Your task to perform on an android device: add a contact in the contacts app Image 0: 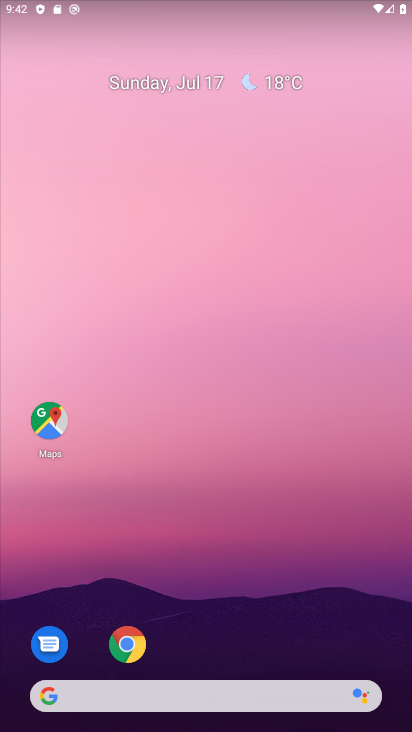
Step 0: drag from (383, 584) to (326, 47)
Your task to perform on an android device: add a contact in the contacts app Image 1: 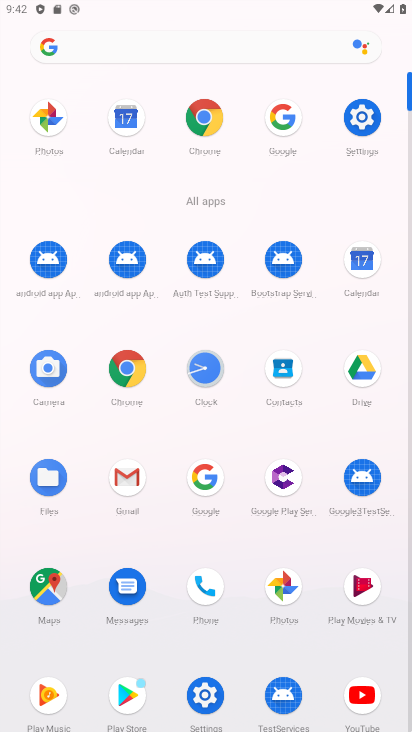
Step 1: click (277, 363)
Your task to perform on an android device: add a contact in the contacts app Image 2: 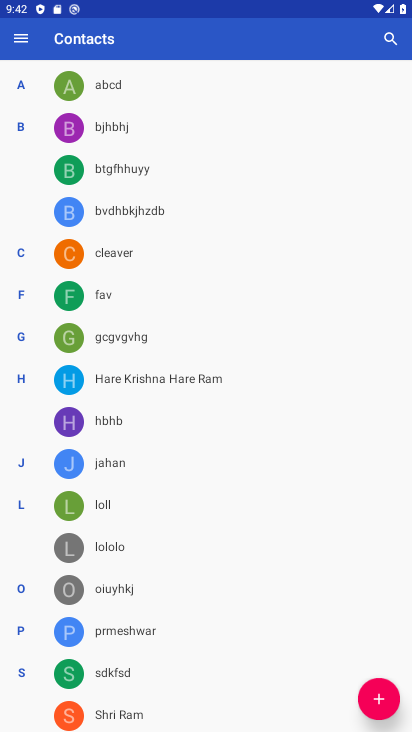
Step 2: click (360, 691)
Your task to perform on an android device: add a contact in the contacts app Image 3: 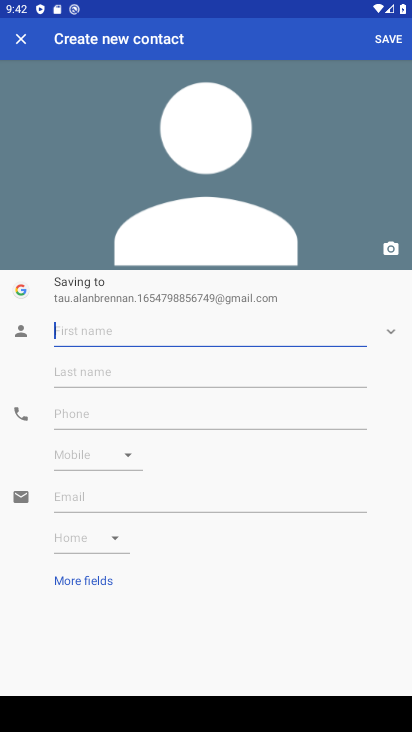
Step 3: type "tdtgcgfjgh"
Your task to perform on an android device: add a contact in the contacts app Image 4: 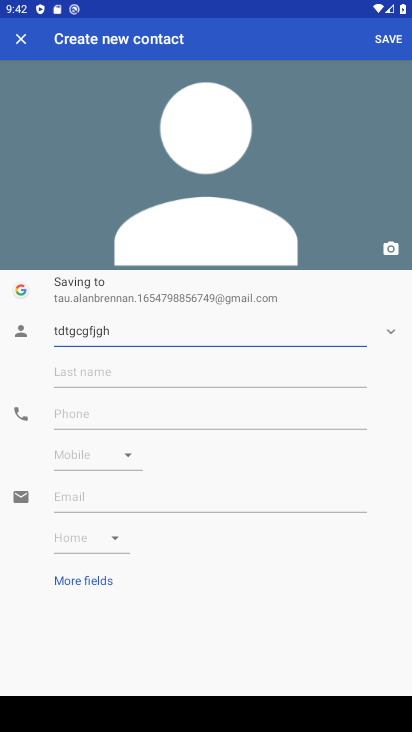
Step 4: click (82, 381)
Your task to perform on an android device: add a contact in the contacts app Image 5: 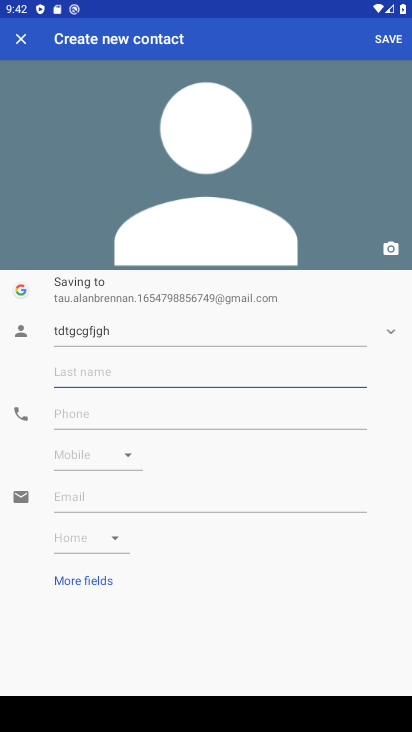
Step 5: type "yrscfcyrdch"
Your task to perform on an android device: add a contact in the contacts app Image 6: 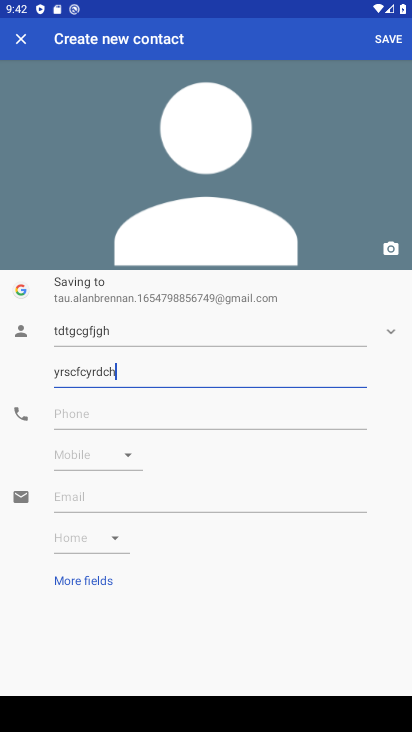
Step 6: click (126, 418)
Your task to perform on an android device: add a contact in the contacts app Image 7: 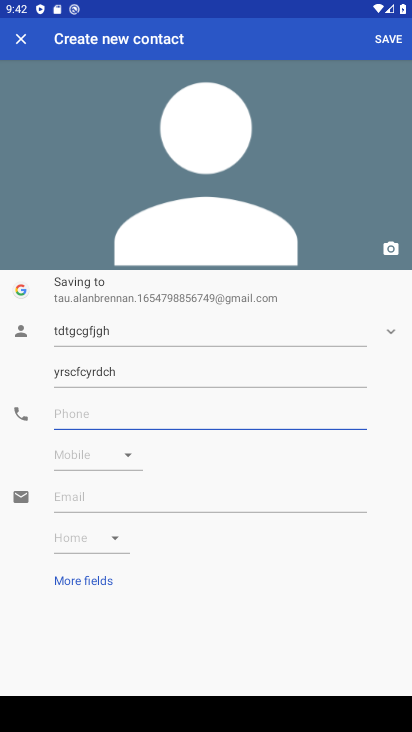
Step 7: type "454545477453436"
Your task to perform on an android device: add a contact in the contacts app Image 8: 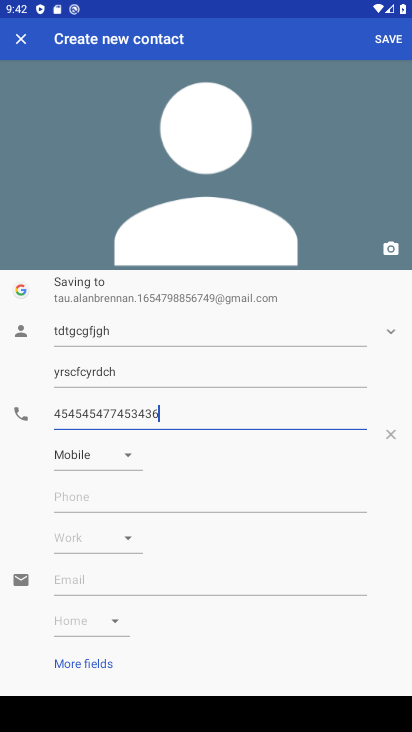
Step 8: click (393, 38)
Your task to perform on an android device: add a contact in the contacts app Image 9: 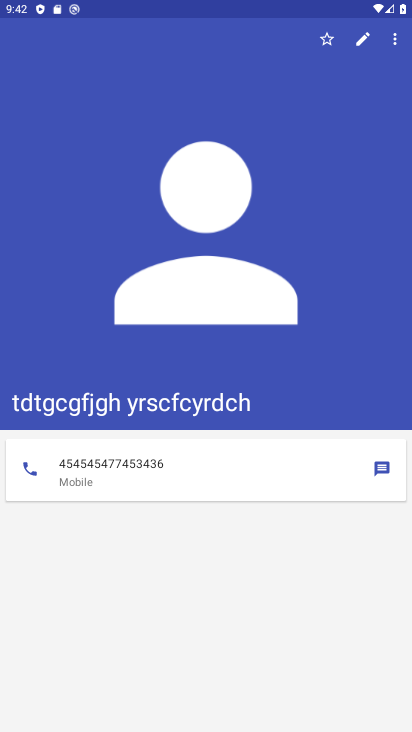
Step 9: task complete